Your task to perform on an android device: turn off picture-in-picture Image 0: 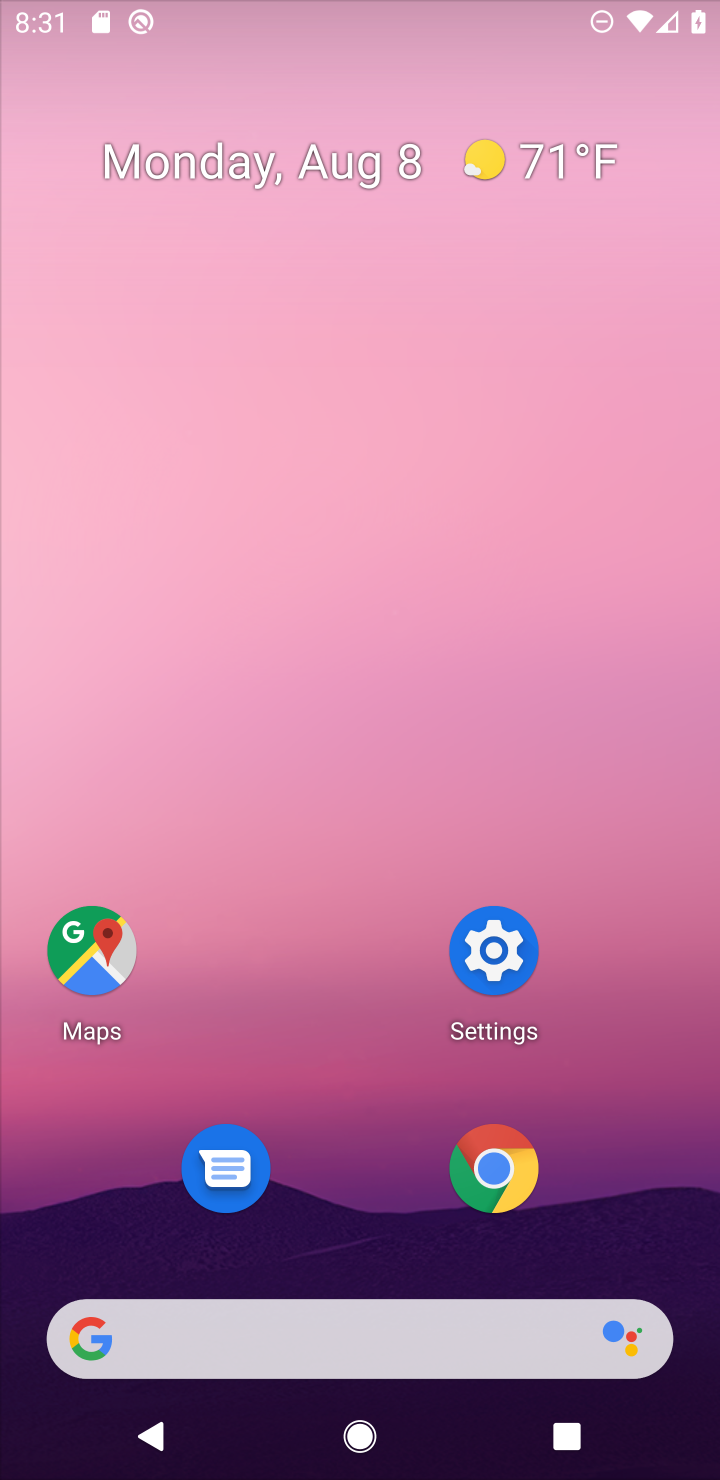
Step 0: press home button
Your task to perform on an android device: turn off picture-in-picture Image 1: 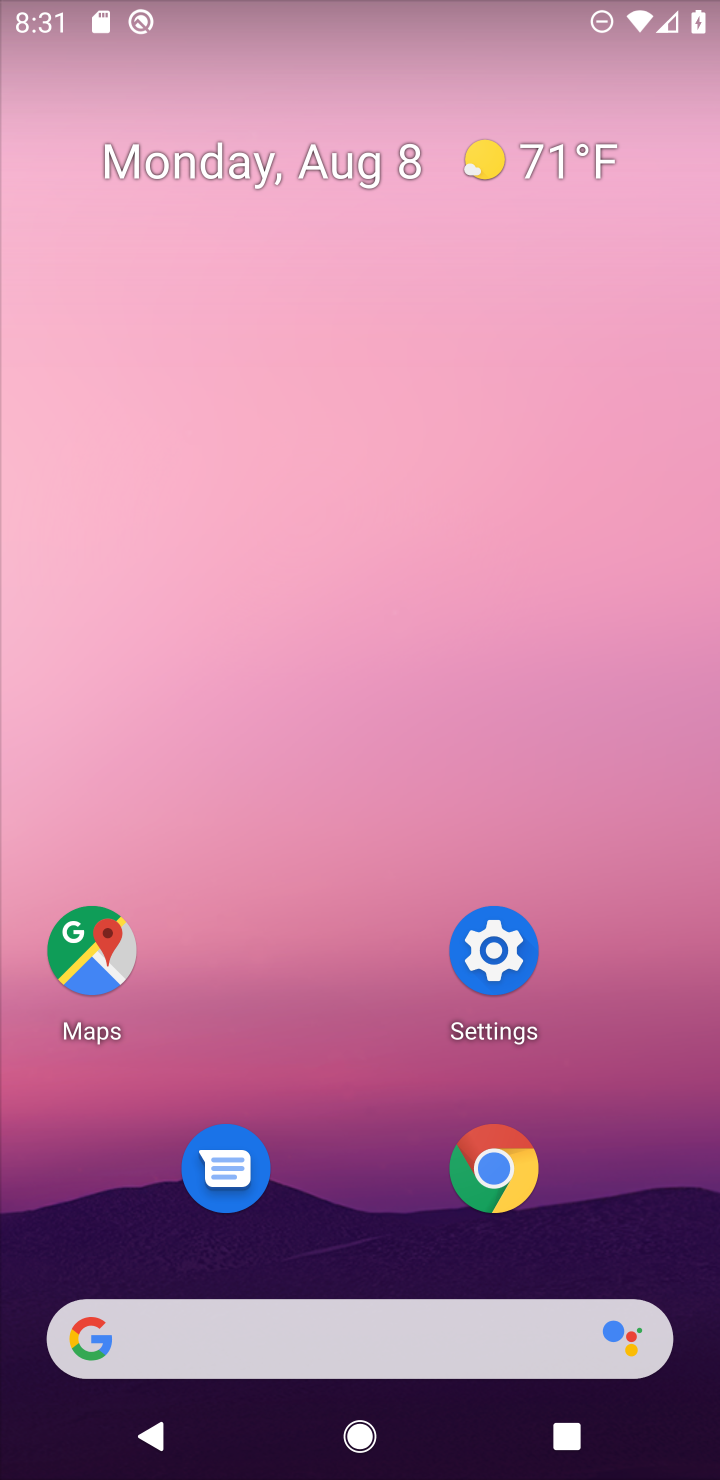
Step 1: click (500, 1172)
Your task to perform on an android device: turn off picture-in-picture Image 2: 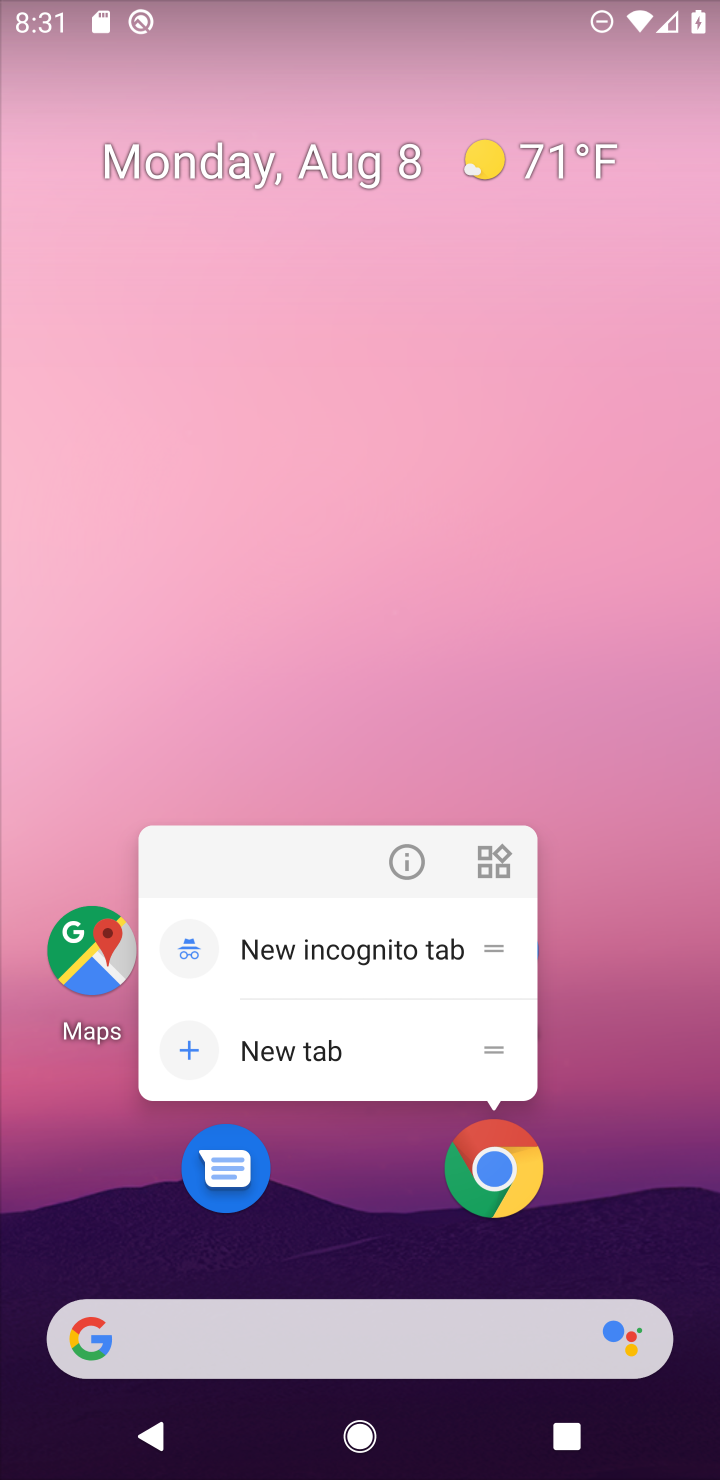
Step 2: click (402, 863)
Your task to perform on an android device: turn off picture-in-picture Image 3: 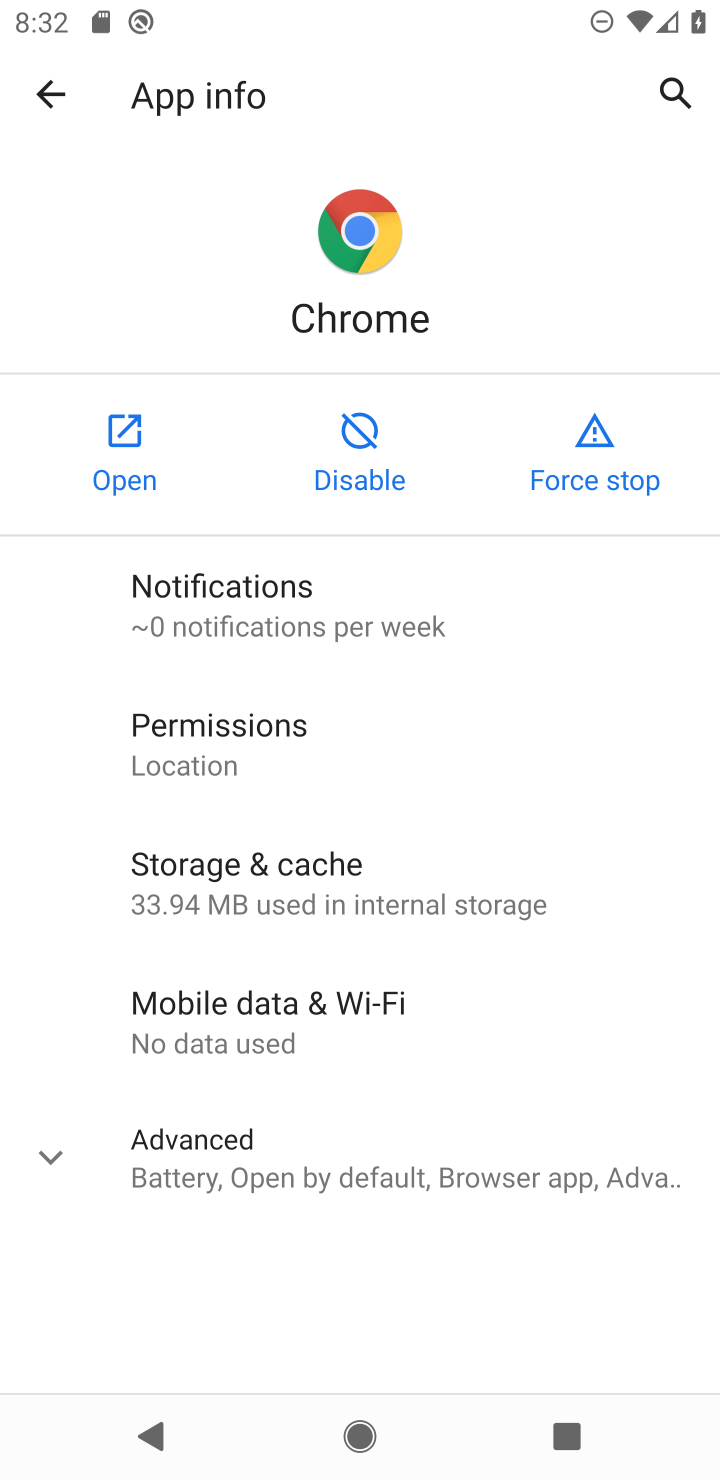
Step 3: drag from (297, 1270) to (670, 214)
Your task to perform on an android device: turn off picture-in-picture Image 4: 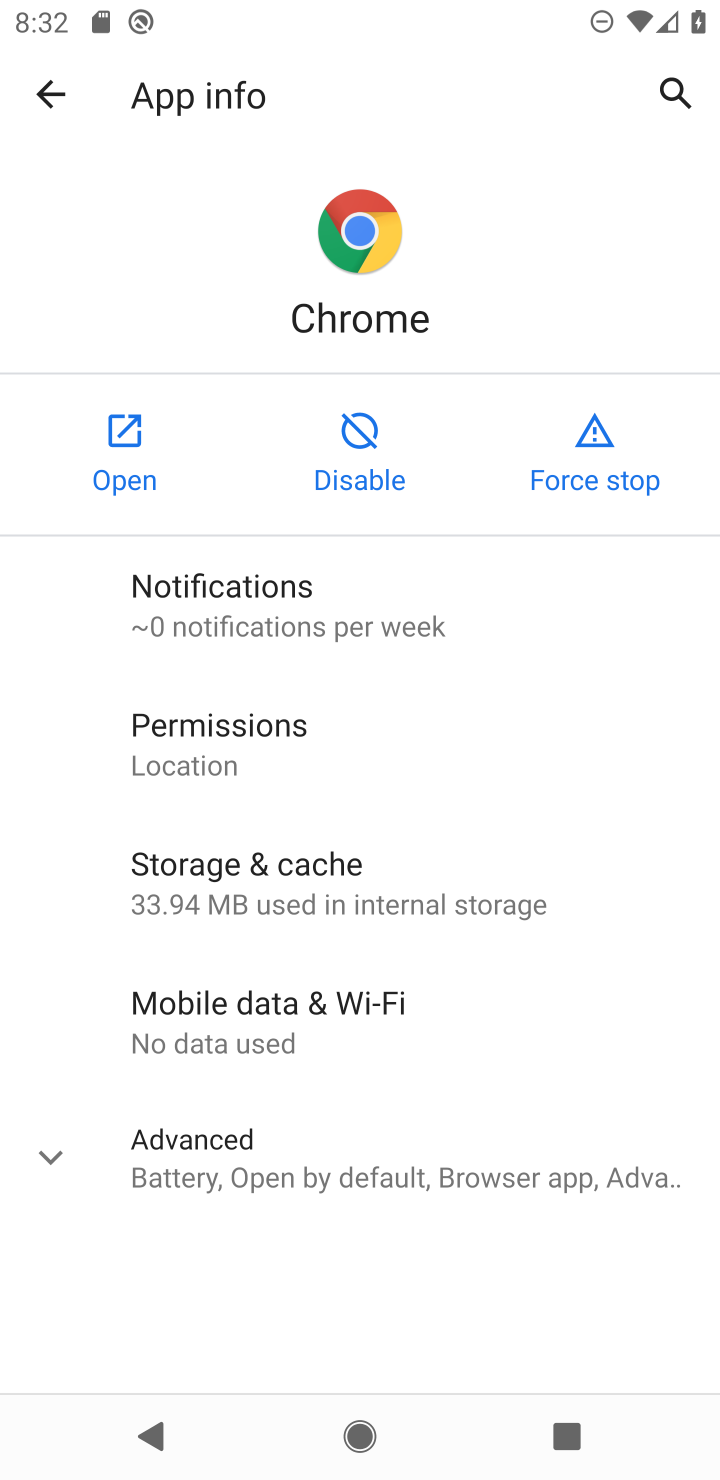
Step 4: click (222, 1142)
Your task to perform on an android device: turn off picture-in-picture Image 5: 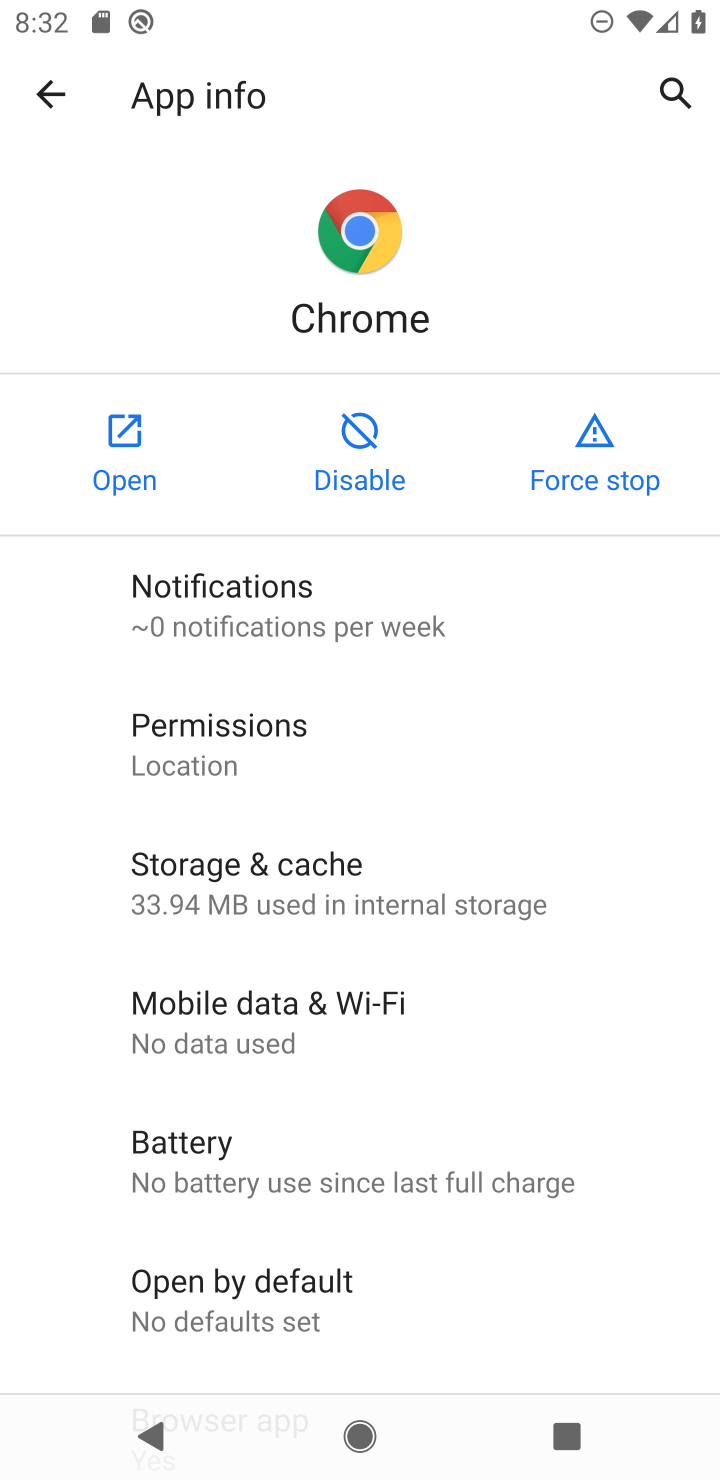
Step 5: drag from (411, 1275) to (657, 209)
Your task to perform on an android device: turn off picture-in-picture Image 6: 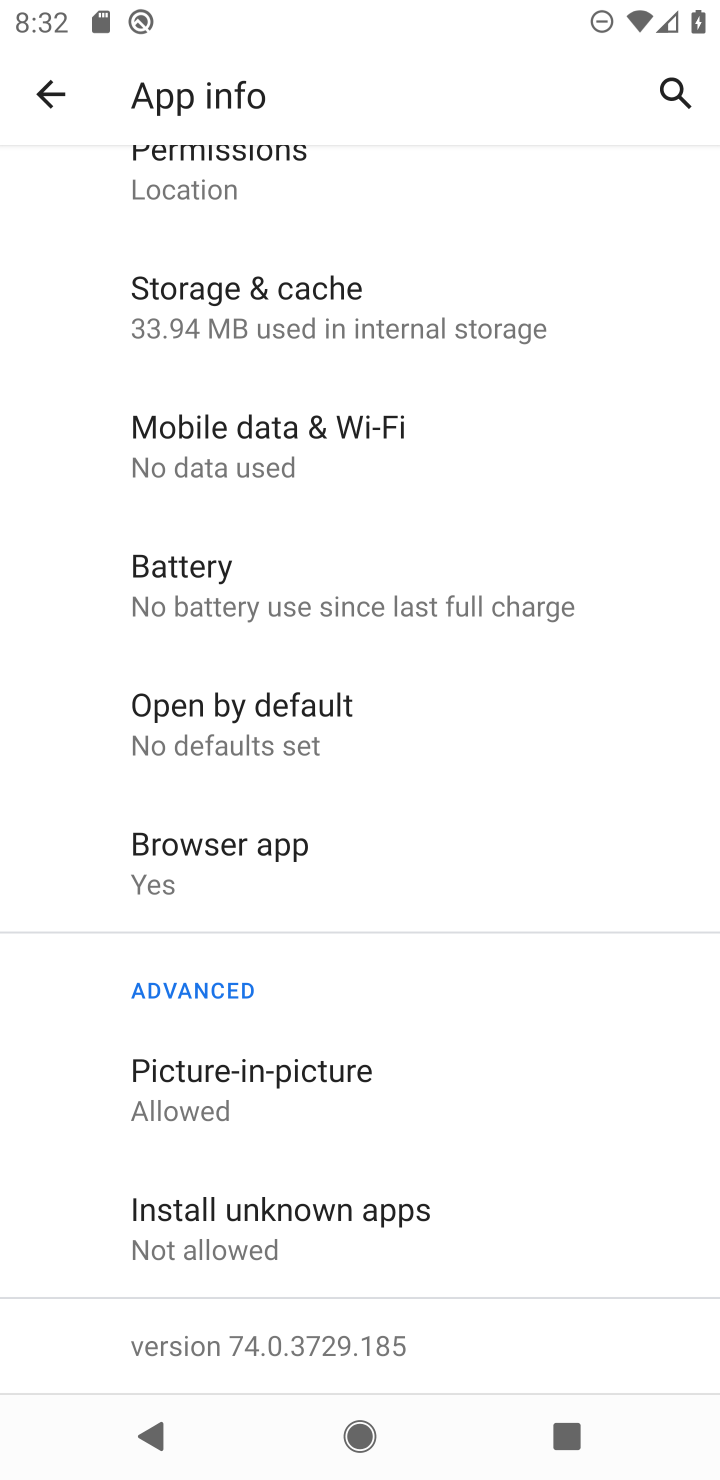
Step 6: click (295, 1086)
Your task to perform on an android device: turn off picture-in-picture Image 7: 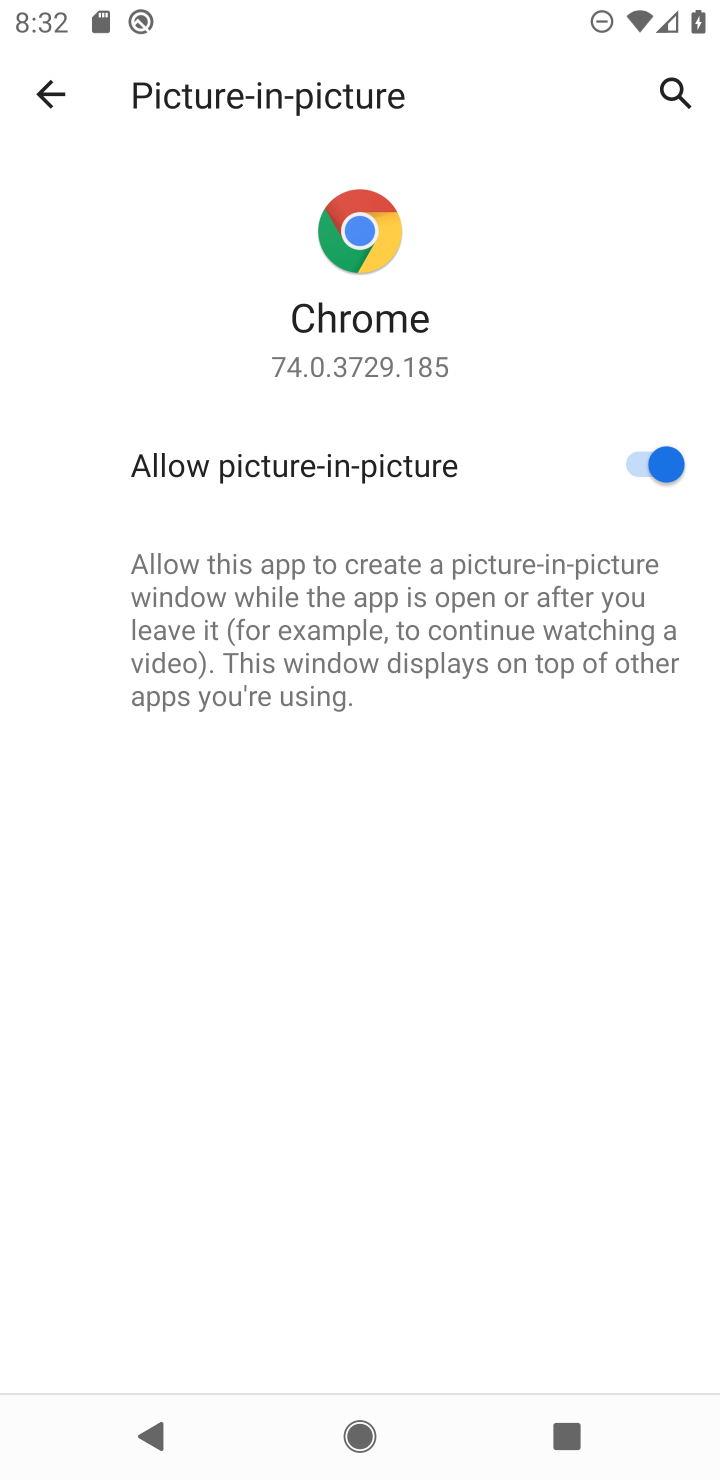
Step 7: click (638, 452)
Your task to perform on an android device: turn off picture-in-picture Image 8: 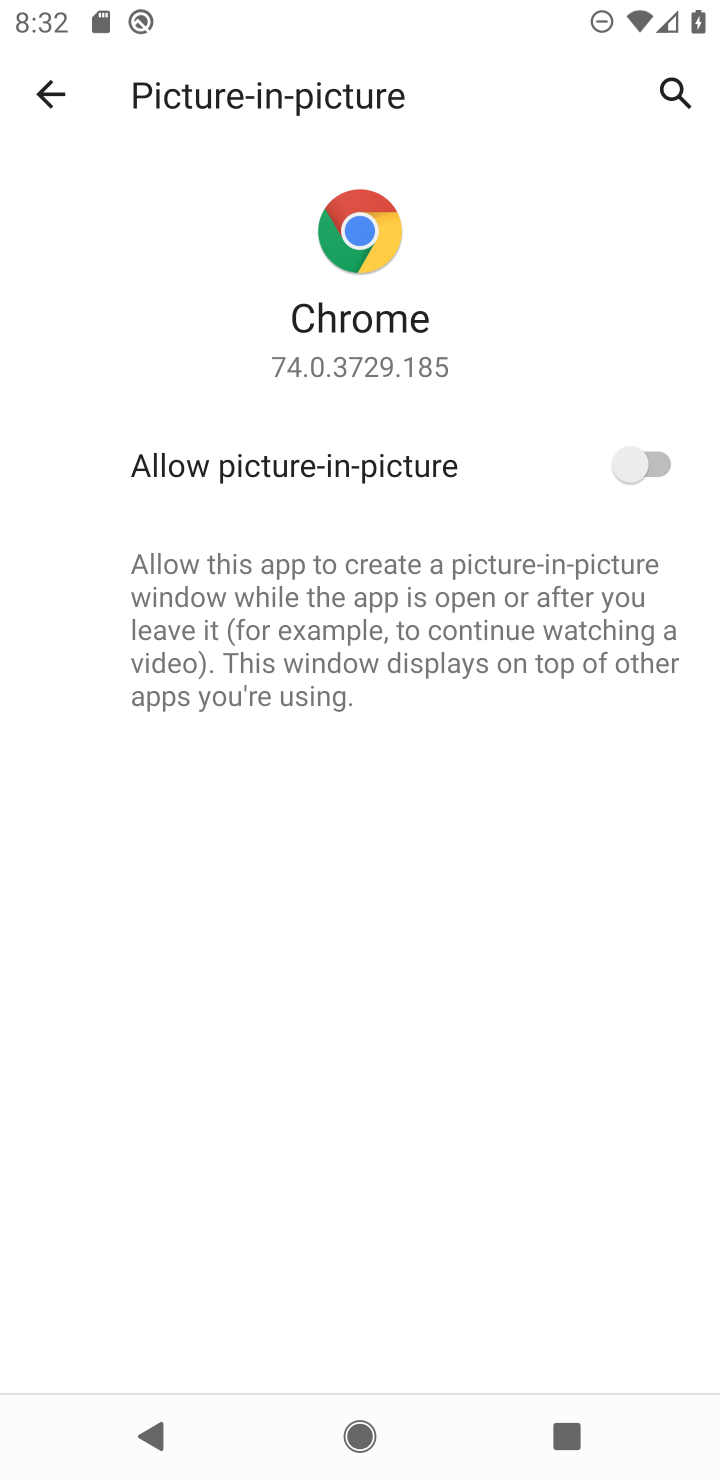
Step 8: task complete